Your task to perform on an android device: turn on the 12-hour format for clock Image 0: 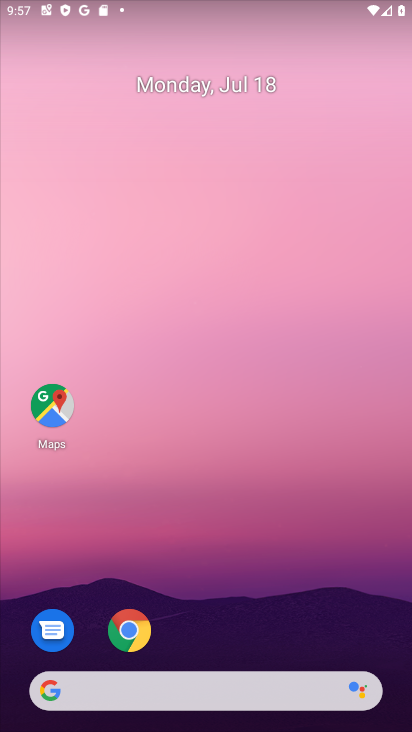
Step 0: drag from (374, 609) to (334, 71)
Your task to perform on an android device: turn on the 12-hour format for clock Image 1: 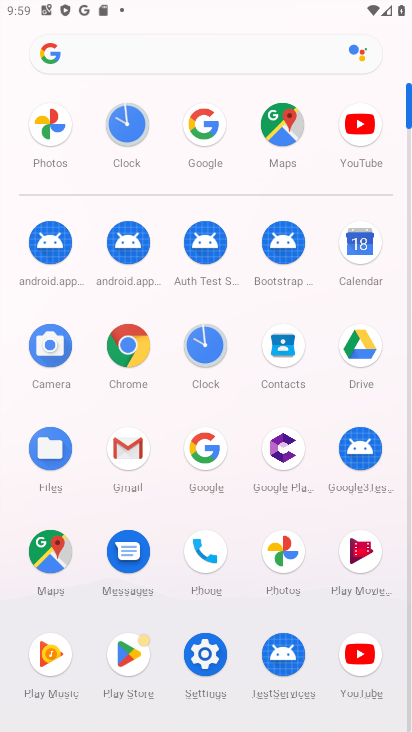
Step 1: click (206, 362)
Your task to perform on an android device: turn on the 12-hour format for clock Image 2: 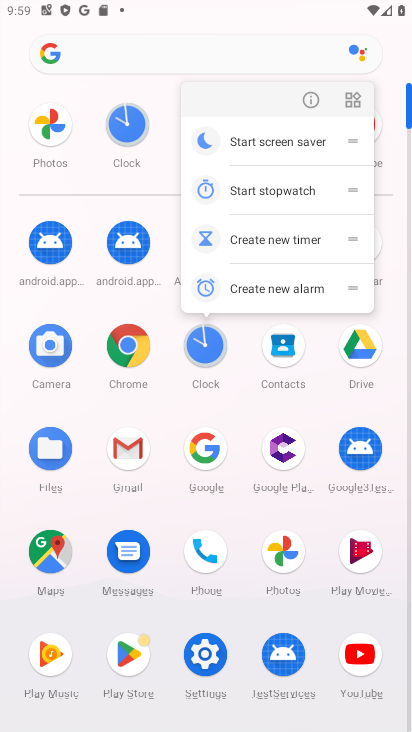
Step 2: click (225, 349)
Your task to perform on an android device: turn on the 12-hour format for clock Image 3: 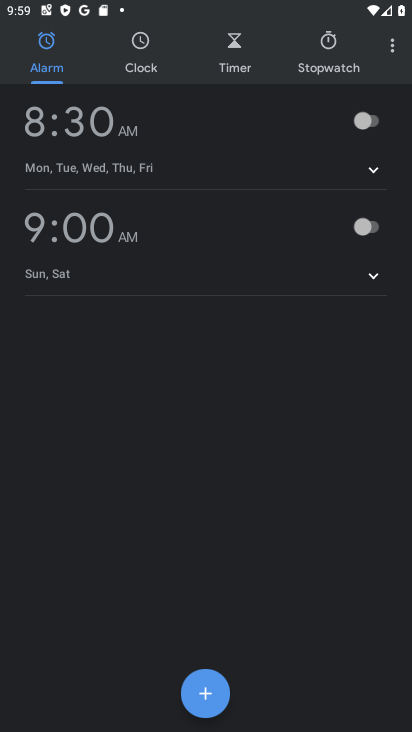
Step 3: click (386, 24)
Your task to perform on an android device: turn on the 12-hour format for clock Image 4: 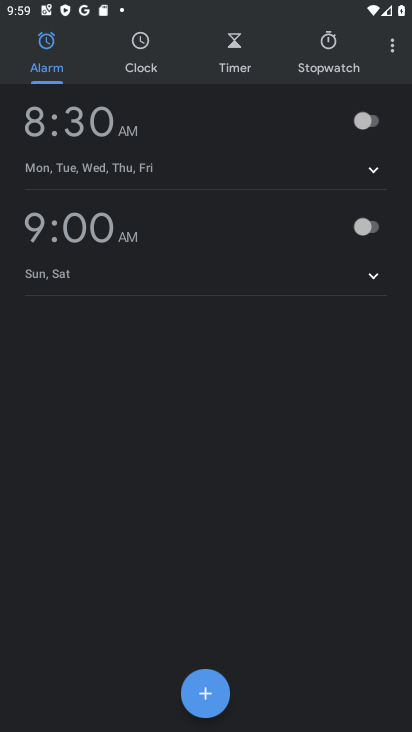
Step 4: click (391, 50)
Your task to perform on an android device: turn on the 12-hour format for clock Image 5: 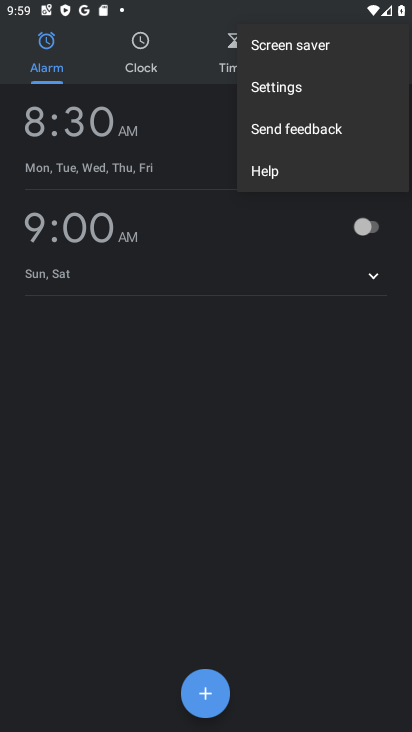
Step 5: click (287, 92)
Your task to perform on an android device: turn on the 12-hour format for clock Image 6: 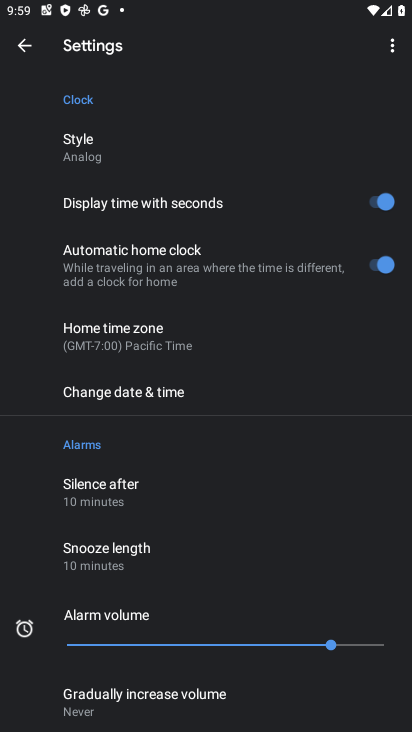
Step 6: click (201, 400)
Your task to perform on an android device: turn on the 12-hour format for clock Image 7: 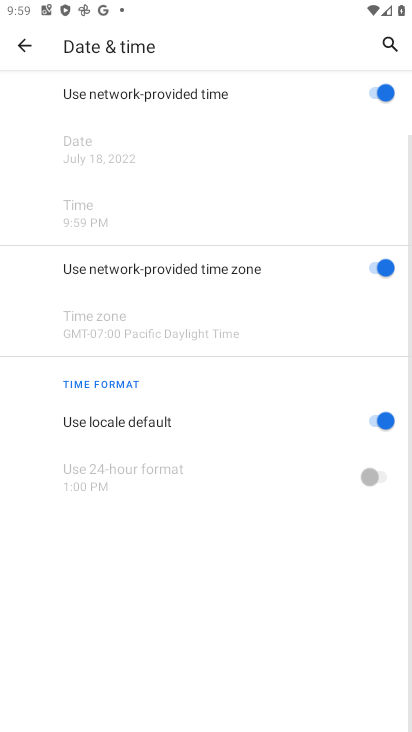
Step 7: task complete